Your task to perform on an android device: turn off notifications in google photos Image 0: 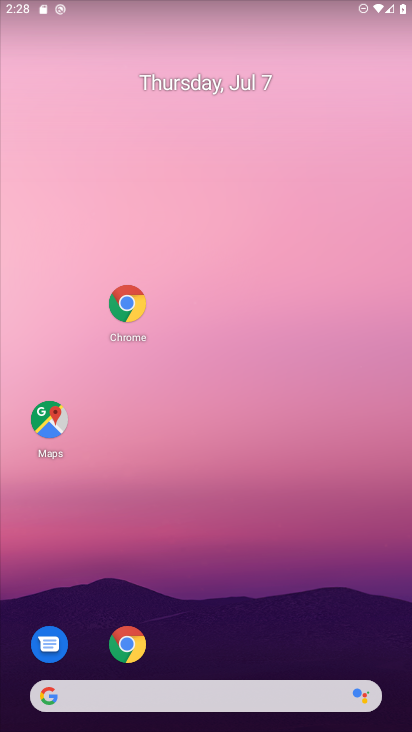
Step 0: drag from (287, 576) to (269, 102)
Your task to perform on an android device: turn off notifications in google photos Image 1: 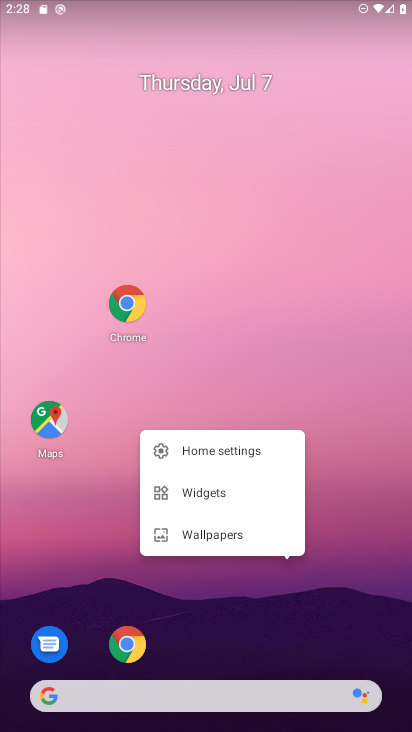
Step 1: drag from (211, 605) to (280, 55)
Your task to perform on an android device: turn off notifications in google photos Image 2: 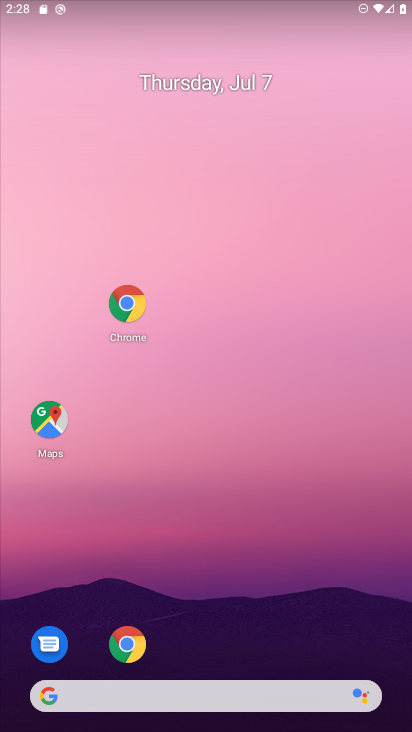
Step 2: drag from (210, 597) to (229, 77)
Your task to perform on an android device: turn off notifications in google photos Image 3: 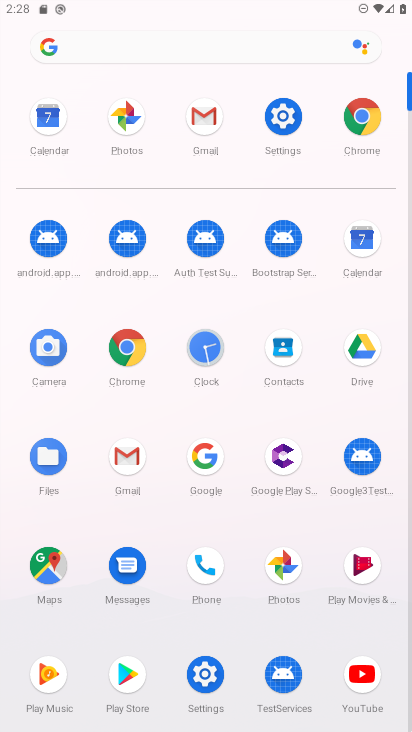
Step 3: click (282, 571)
Your task to perform on an android device: turn off notifications in google photos Image 4: 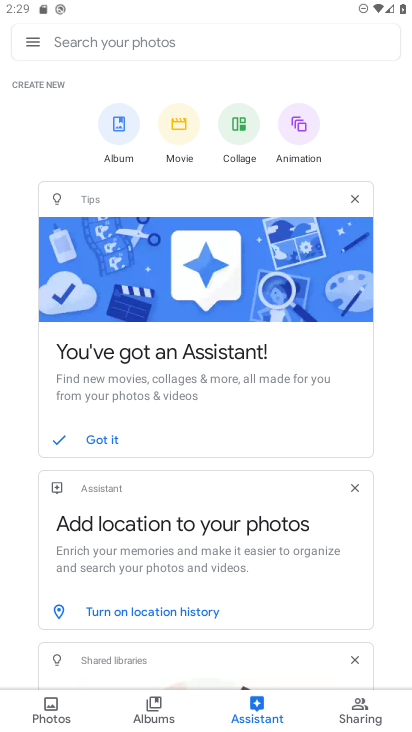
Step 4: click (36, 41)
Your task to perform on an android device: turn off notifications in google photos Image 5: 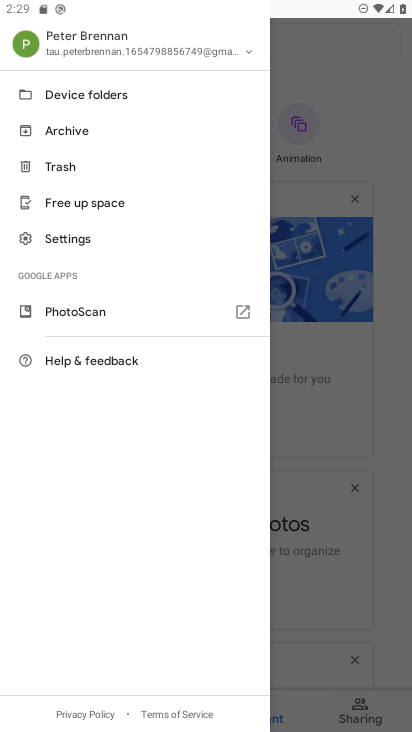
Step 5: click (94, 245)
Your task to perform on an android device: turn off notifications in google photos Image 6: 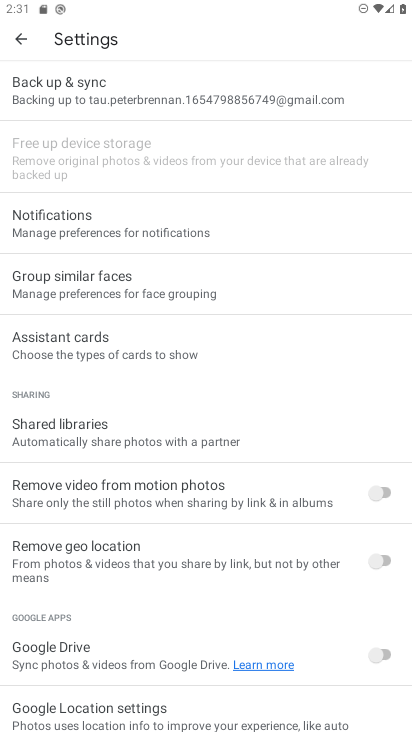
Step 6: click (212, 212)
Your task to perform on an android device: turn off notifications in google photos Image 7: 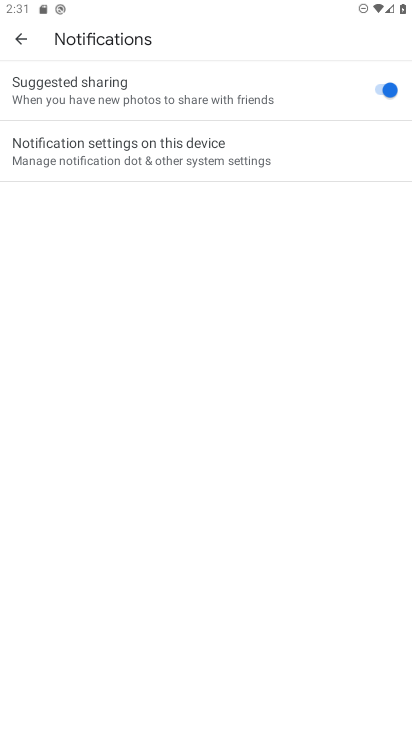
Step 7: click (317, 159)
Your task to perform on an android device: turn off notifications in google photos Image 8: 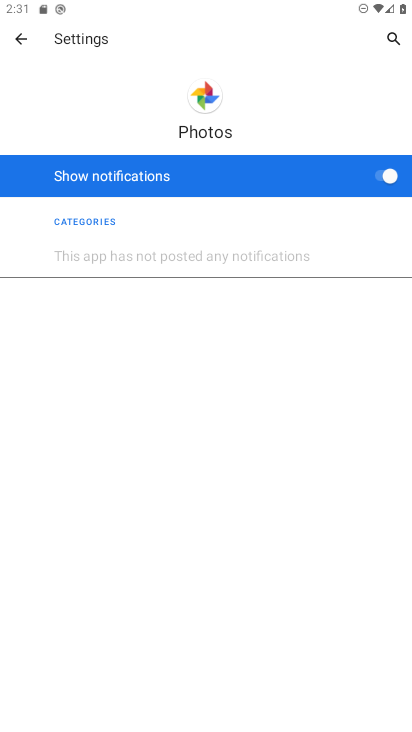
Step 8: click (377, 178)
Your task to perform on an android device: turn off notifications in google photos Image 9: 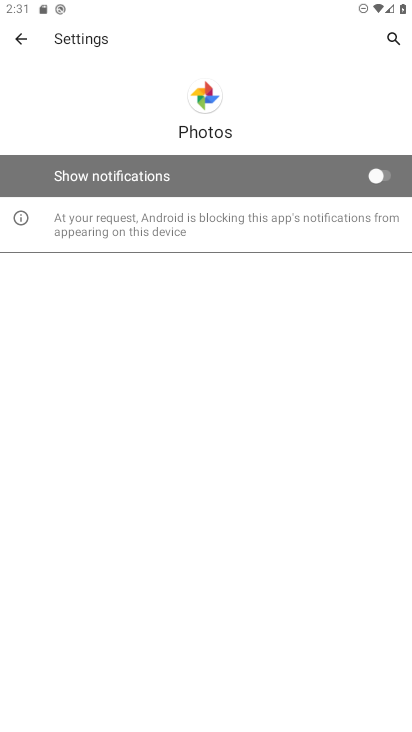
Step 9: task complete